Your task to perform on an android device: Open the Play Movies app and select the watchlist tab. Image 0: 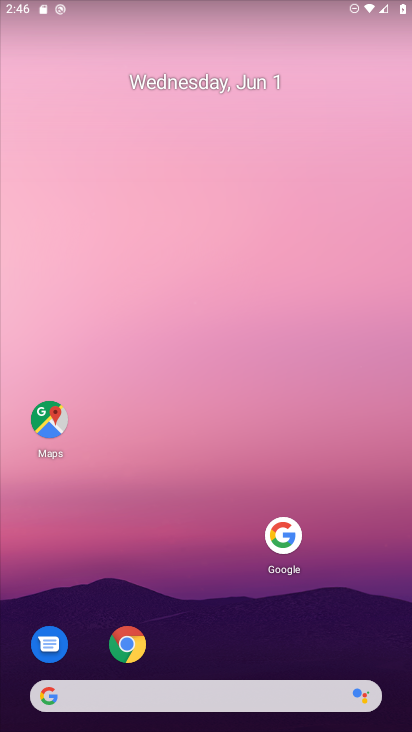
Step 0: drag from (160, 688) to (312, 244)
Your task to perform on an android device: Open the Play Movies app and select the watchlist tab. Image 1: 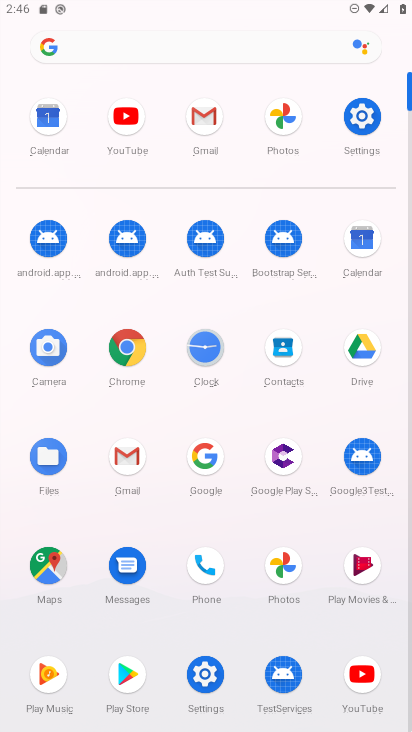
Step 1: click (365, 567)
Your task to perform on an android device: Open the Play Movies app and select the watchlist tab. Image 2: 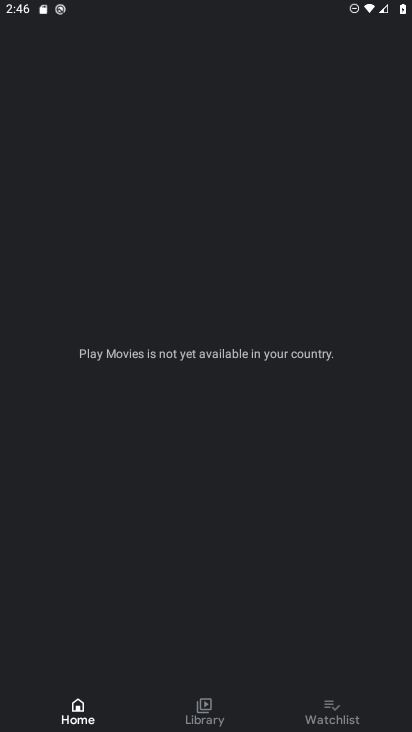
Step 2: click (321, 700)
Your task to perform on an android device: Open the Play Movies app and select the watchlist tab. Image 3: 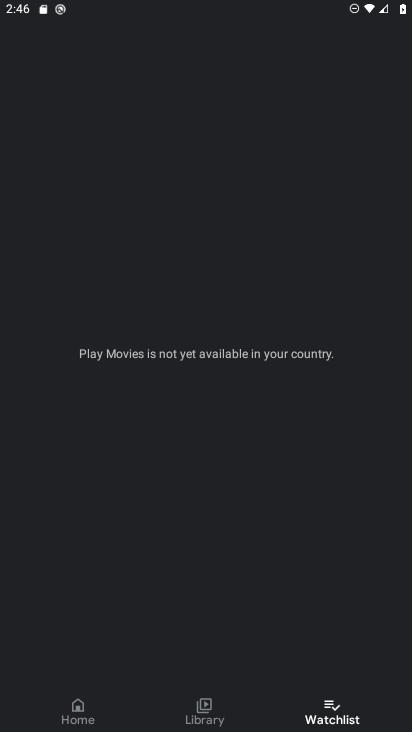
Step 3: task complete